Your task to perform on an android device: Empty the shopping cart on costco.com. Search for alienware area 51 on costco.com, select the first entry, add it to the cart, then select checkout. Image 0: 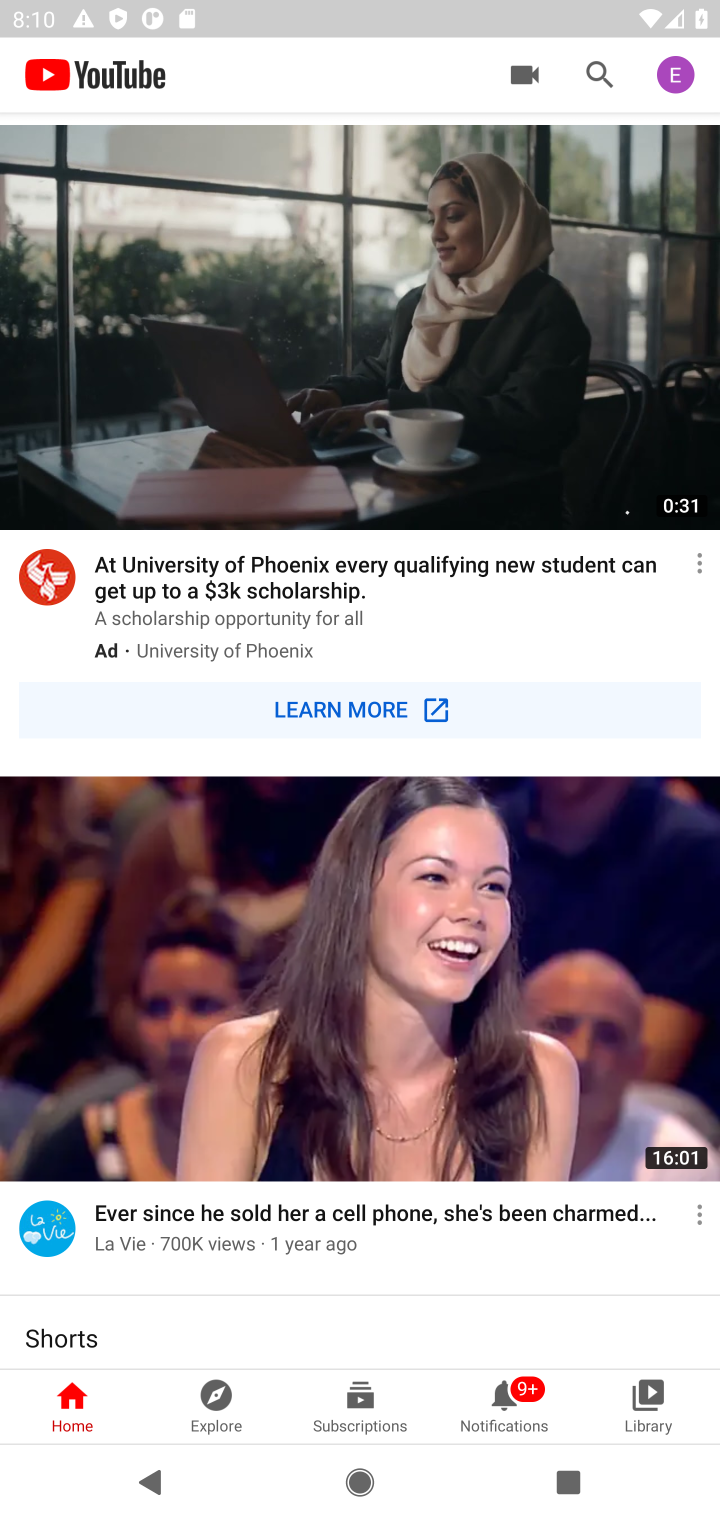
Step 0: press home button
Your task to perform on an android device: Empty the shopping cart on costco.com. Search for alienware area 51 on costco.com, select the first entry, add it to the cart, then select checkout. Image 1: 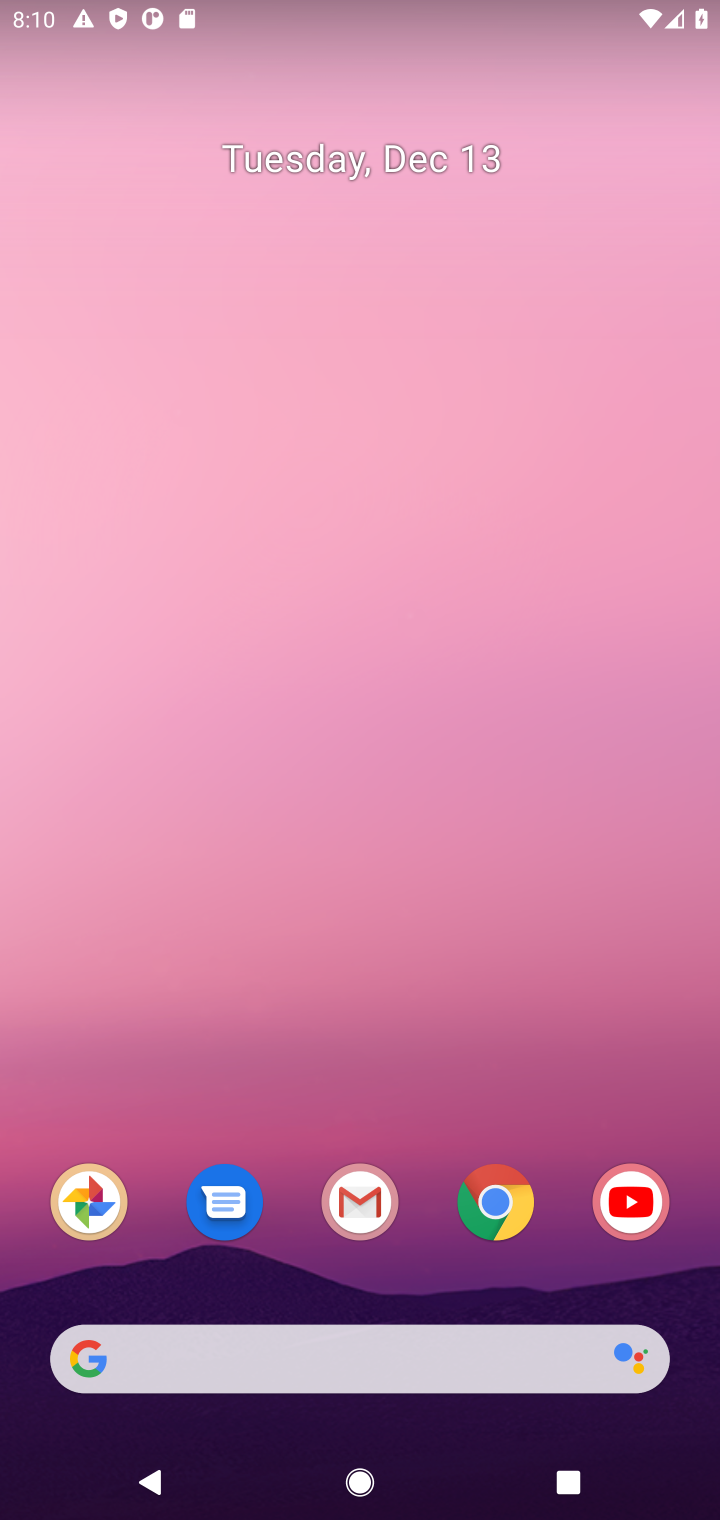
Step 1: click (515, 1195)
Your task to perform on an android device: Empty the shopping cart on costco.com. Search for alienware area 51 on costco.com, select the first entry, add it to the cart, then select checkout. Image 2: 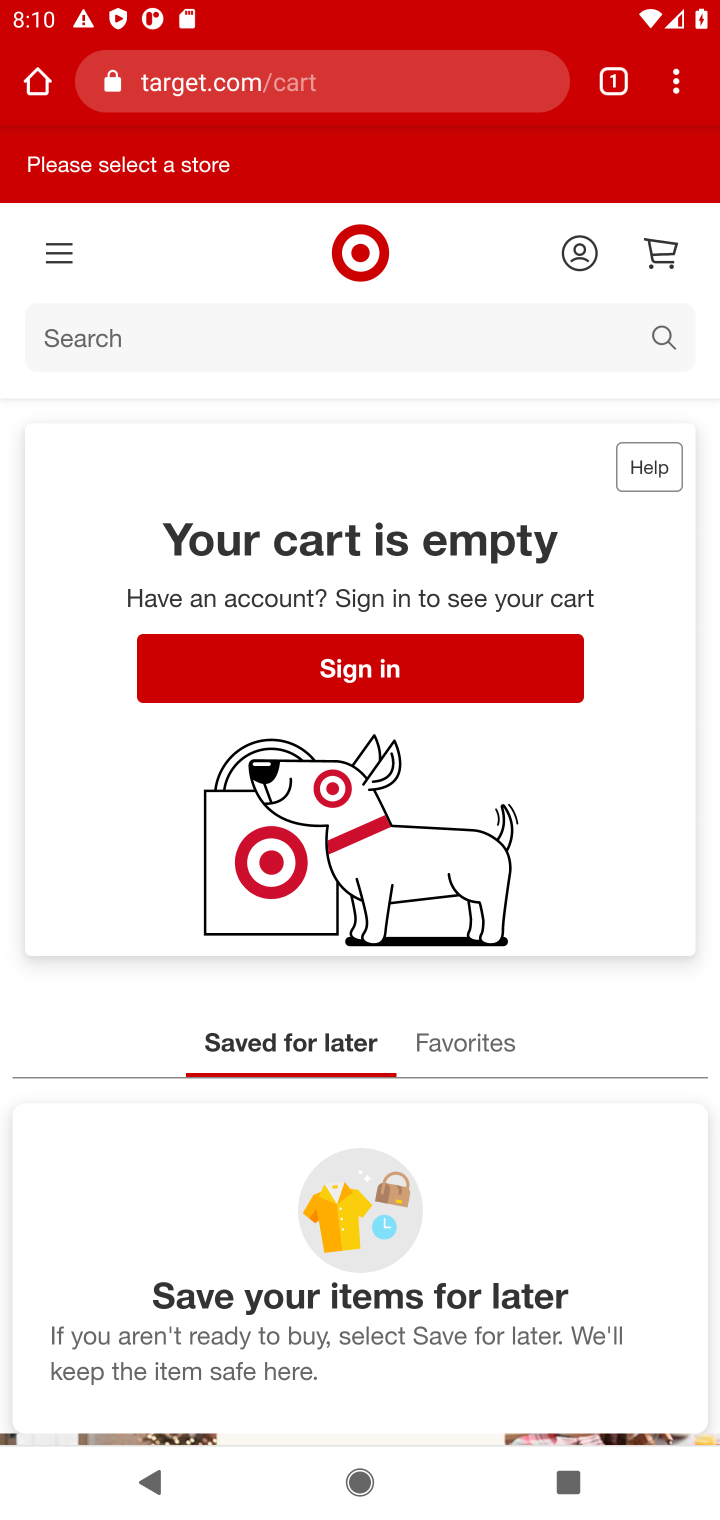
Step 2: click (515, 89)
Your task to perform on an android device: Empty the shopping cart on costco.com. Search for alienware area 51 on costco.com, select the first entry, add it to the cart, then select checkout. Image 3: 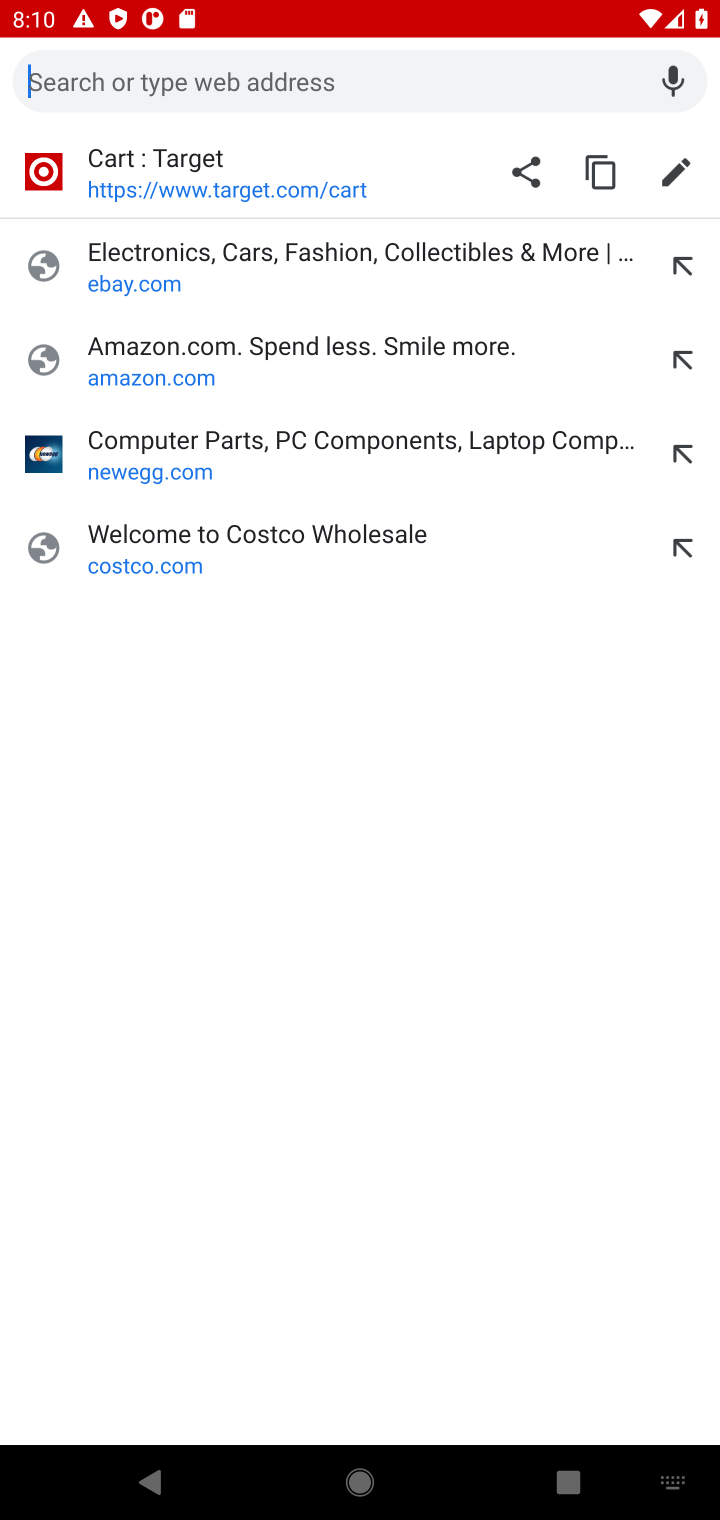
Step 3: click (115, 555)
Your task to perform on an android device: Empty the shopping cart on costco.com. Search for alienware area 51 on costco.com, select the first entry, add it to the cart, then select checkout. Image 4: 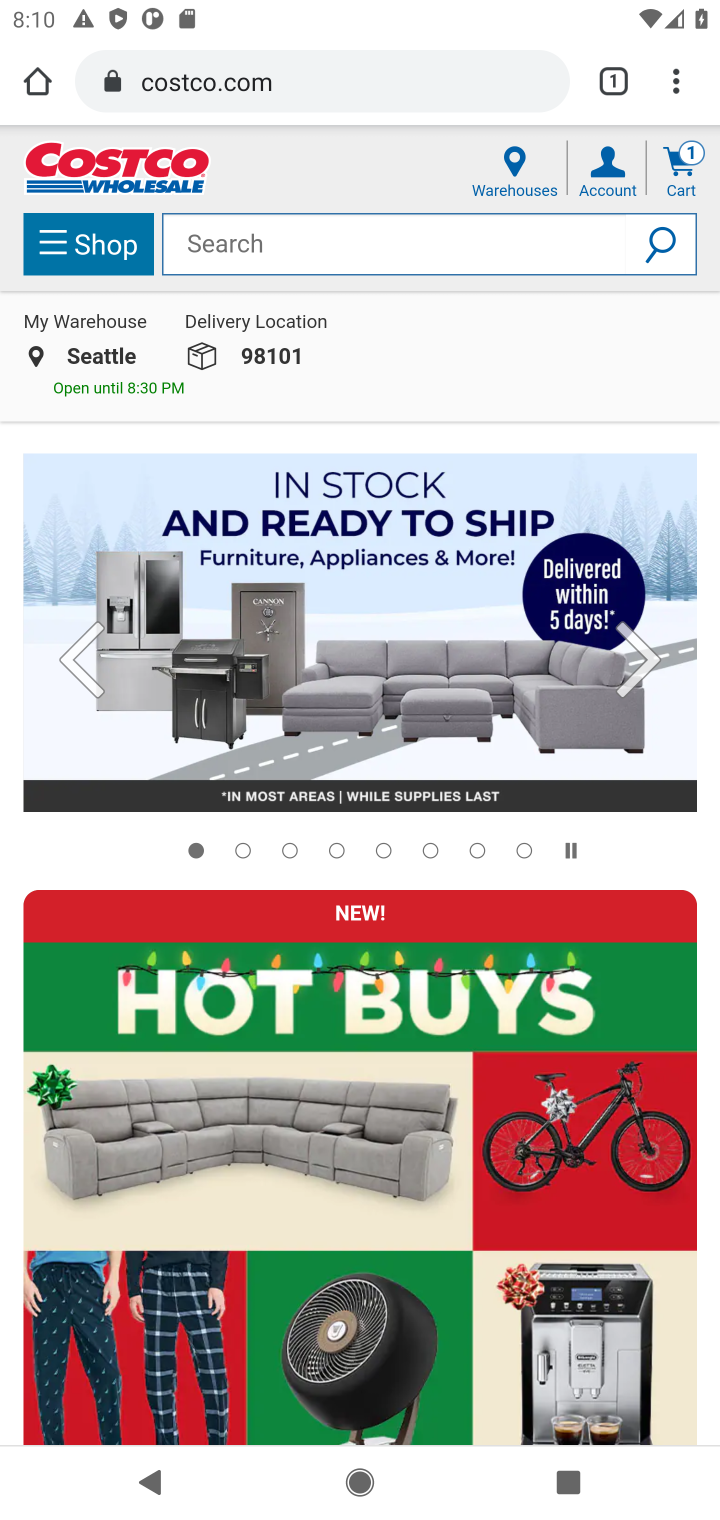
Step 4: click (677, 182)
Your task to perform on an android device: Empty the shopping cart on costco.com. Search for alienware area 51 on costco.com, select the first entry, add it to the cart, then select checkout. Image 5: 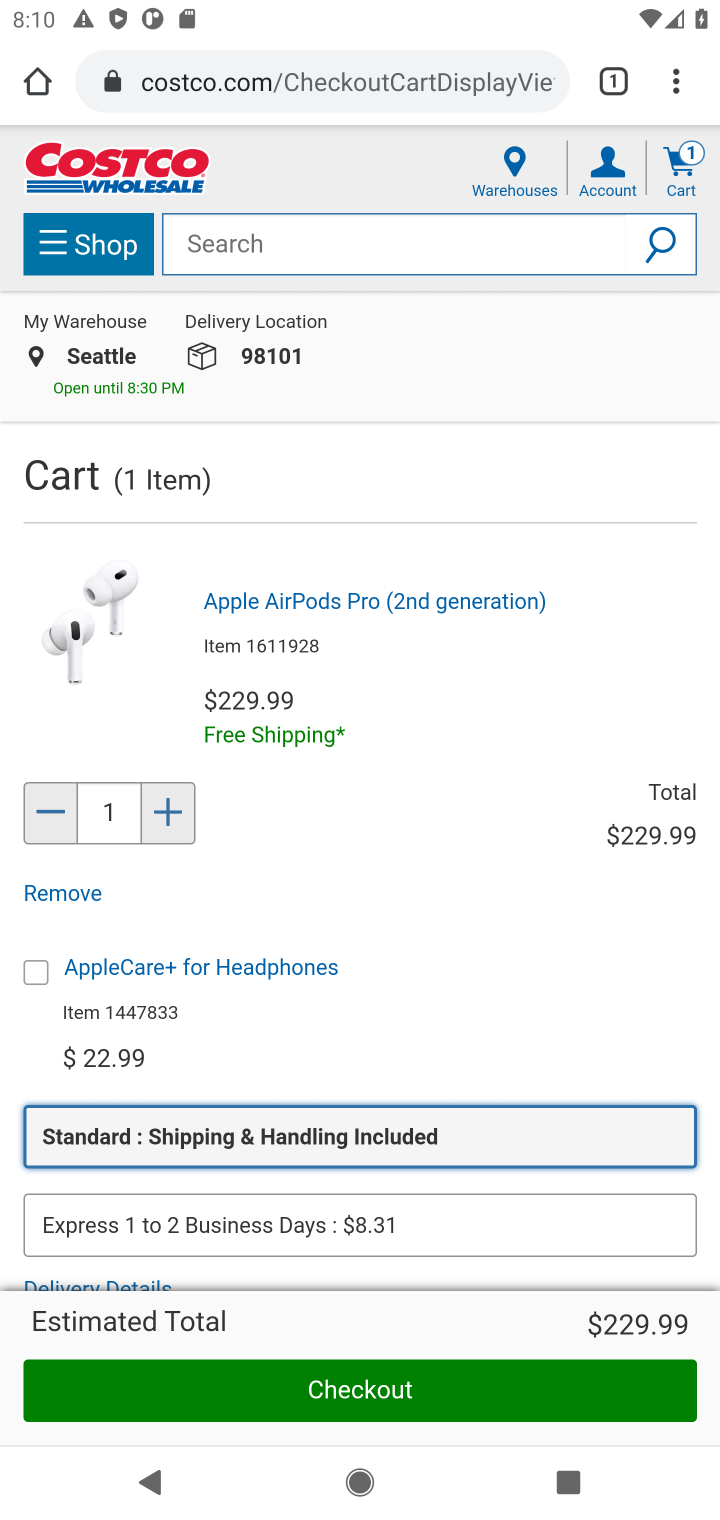
Step 5: drag from (467, 1005) to (506, 622)
Your task to perform on an android device: Empty the shopping cart on costco.com. Search for alienware area 51 on costco.com, select the first entry, add it to the cart, then select checkout. Image 6: 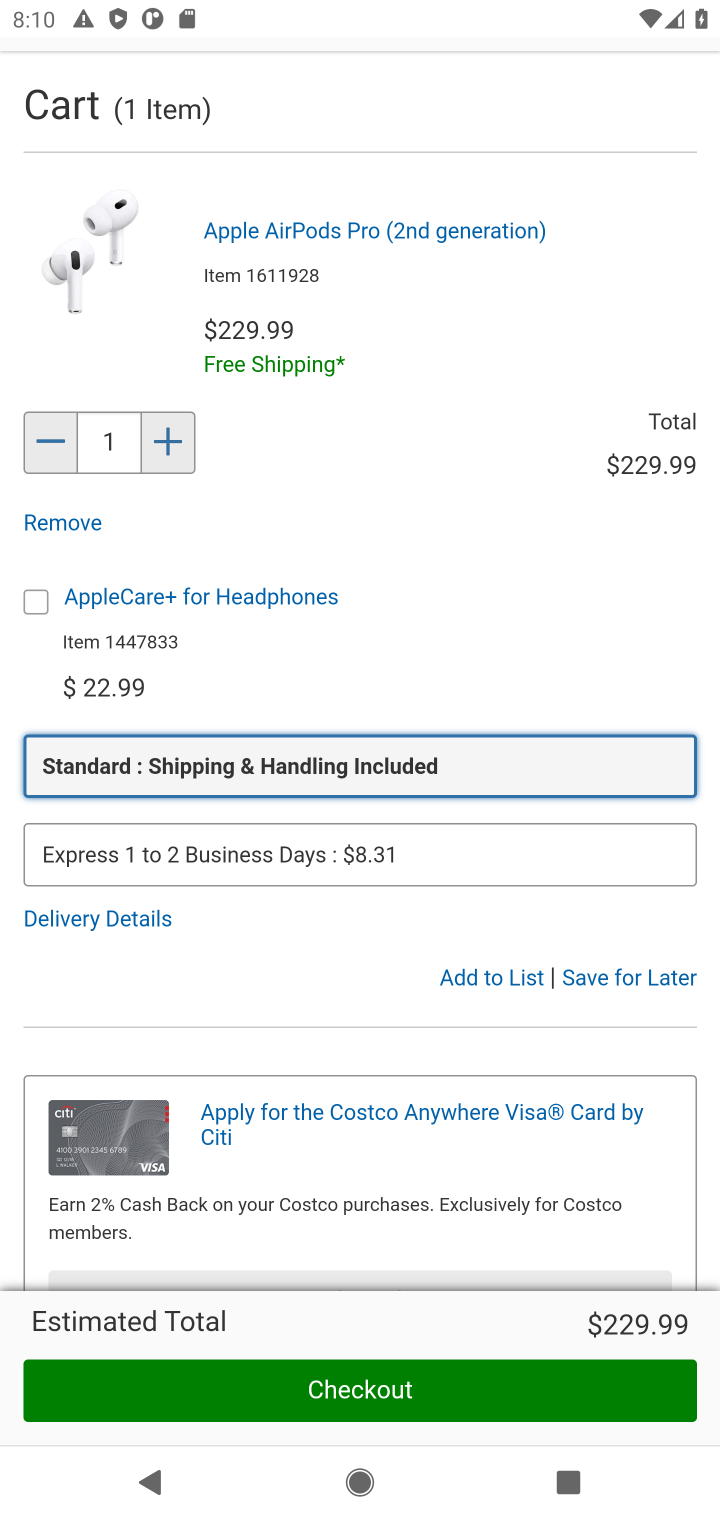
Step 6: click (613, 976)
Your task to perform on an android device: Empty the shopping cart on costco.com. Search for alienware area 51 on costco.com, select the first entry, add it to the cart, then select checkout. Image 7: 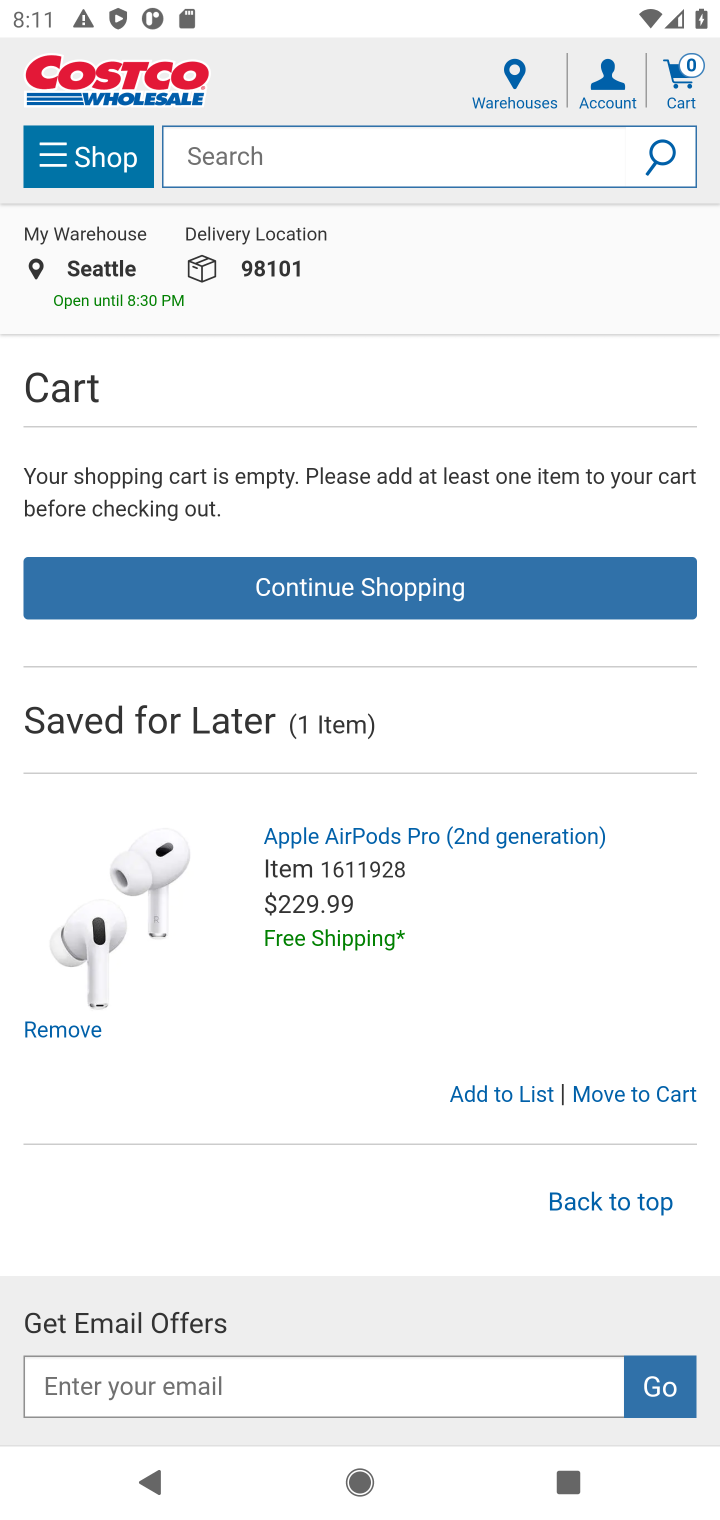
Step 7: click (419, 157)
Your task to perform on an android device: Empty the shopping cart on costco.com. Search for alienware area 51 on costco.com, select the first entry, add it to the cart, then select checkout. Image 8: 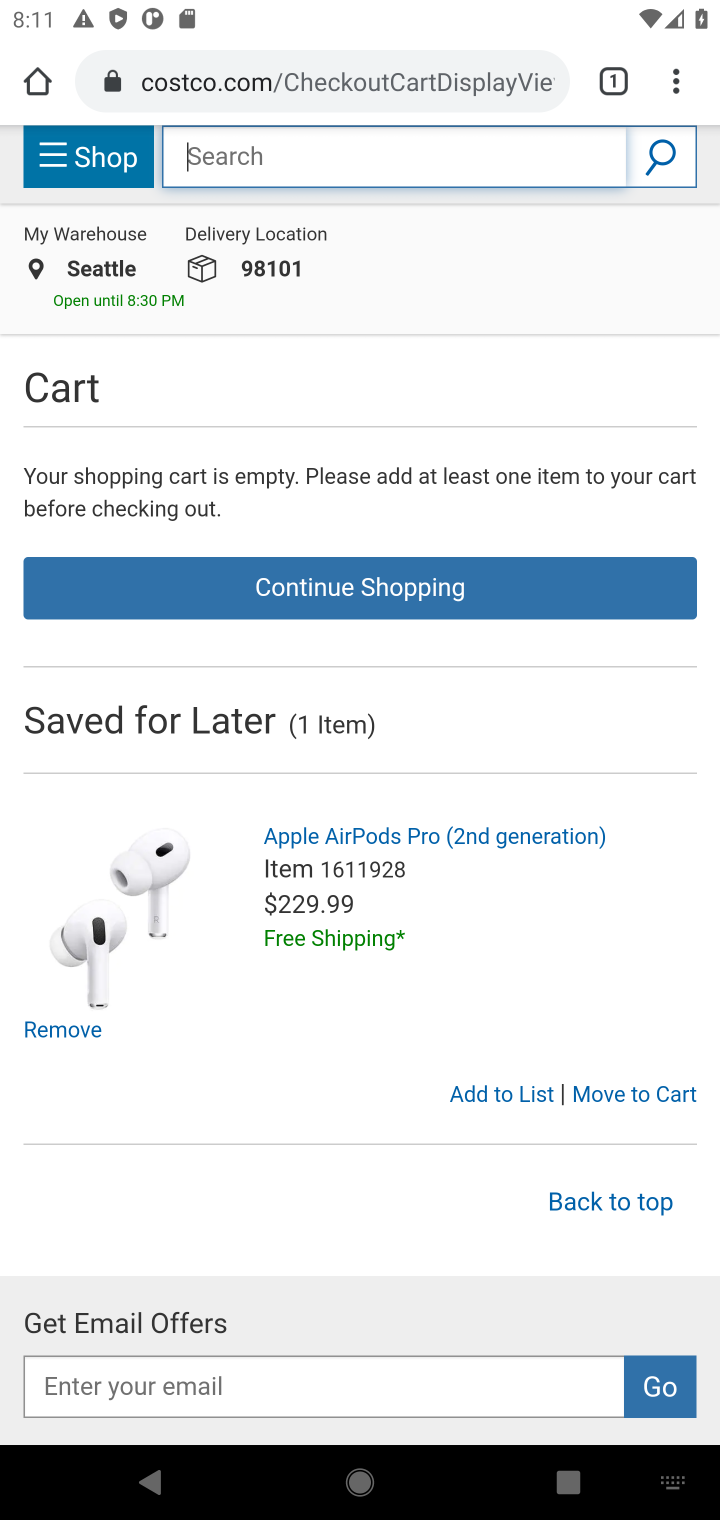
Step 8: type "alienware area 51"
Your task to perform on an android device: Empty the shopping cart on costco.com. Search for alienware area 51 on costco.com, select the first entry, add it to the cart, then select checkout. Image 9: 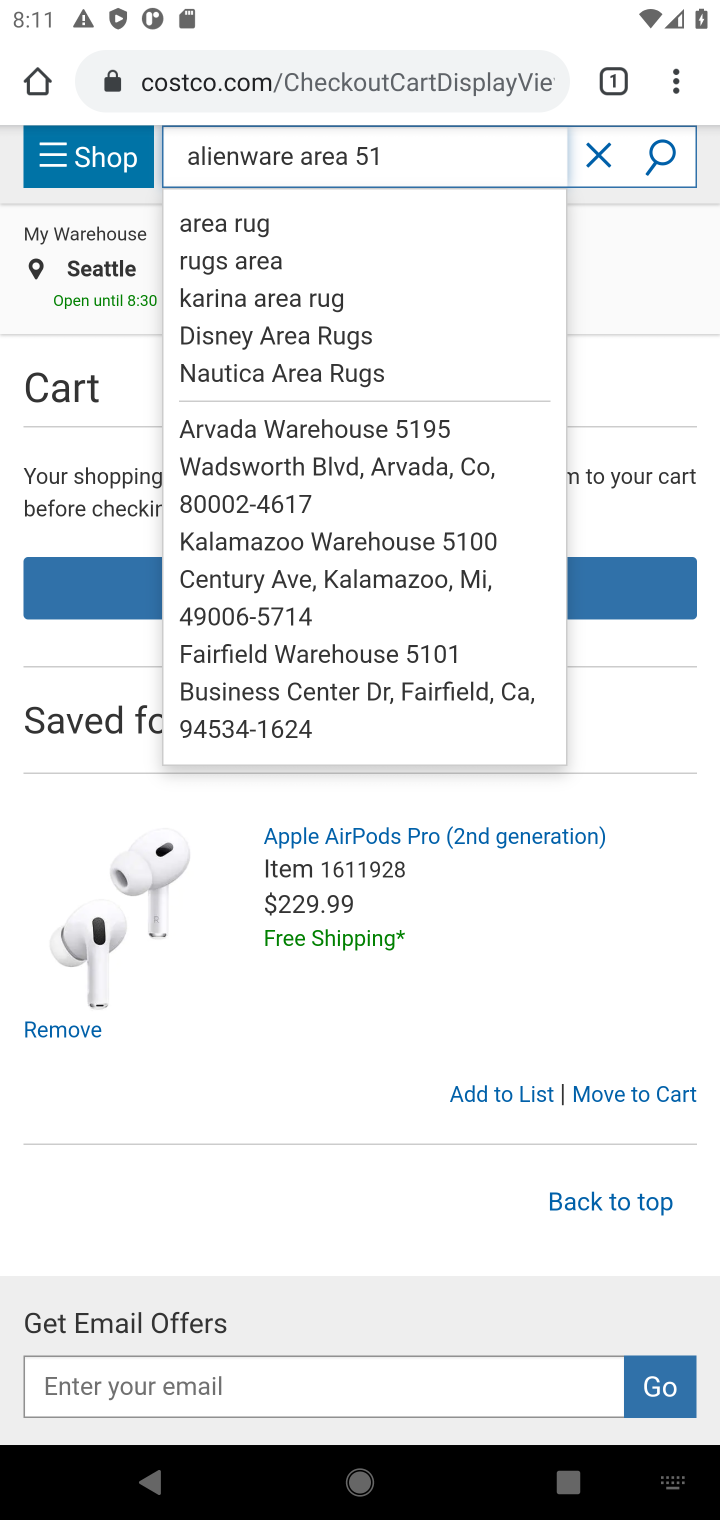
Step 9: click (671, 162)
Your task to perform on an android device: Empty the shopping cart on costco.com. Search for alienware area 51 on costco.com, select the first entry, add it to the cart, then select checkout. Image 10: 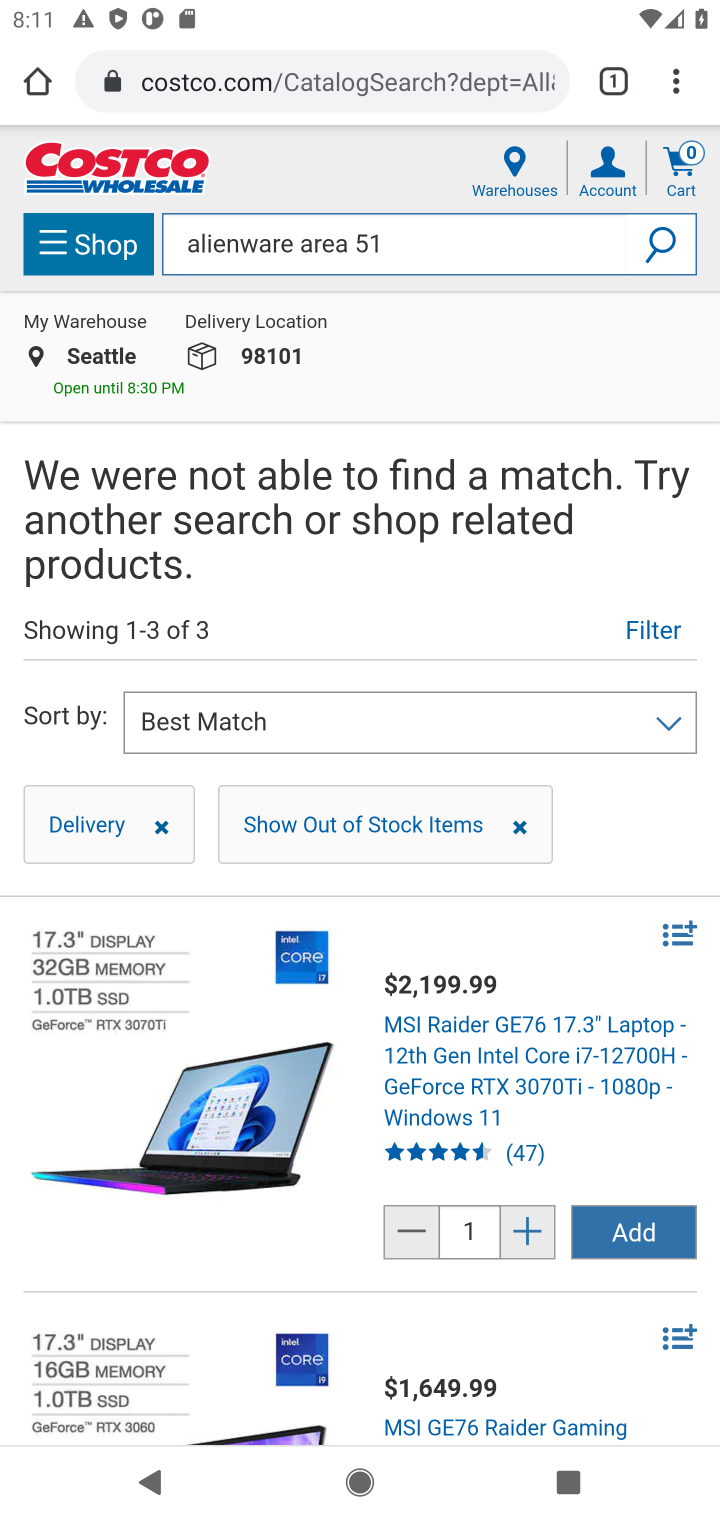
Step 10: task complete